Your task to perform on an android device: Open Chrome and go to settings Image 0: 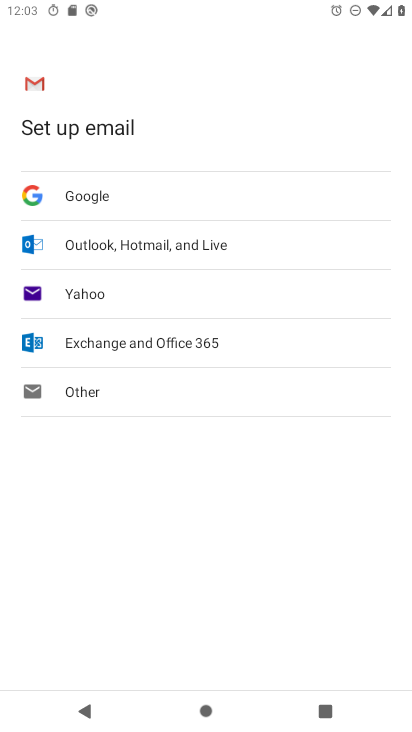
Step 0: press home button
Your task to perform on an android device: Open Chrome and go to settings Image 1: 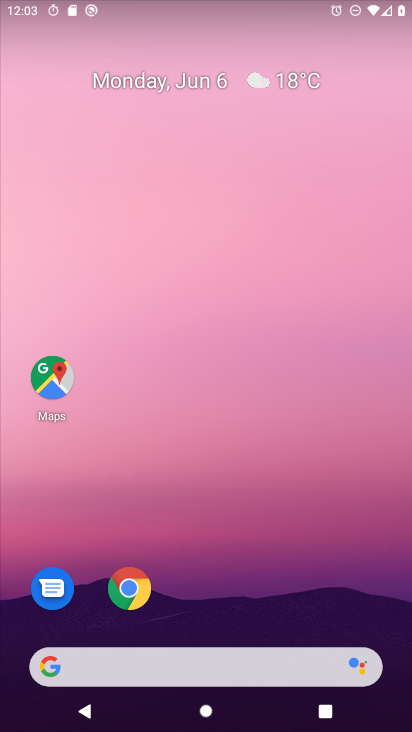
Step 1: drag from (335, 590) to (357, 297)
Your task to perform on an android device: Open Chrome and go to settings Image 2: 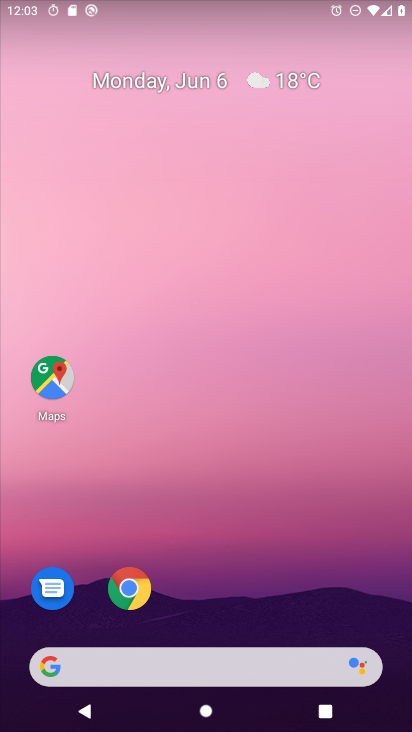
Step 2: drag from (338, 602) to (339, 55)
Your task to perform on an android device: Open Chrome and go to settings Image 3: 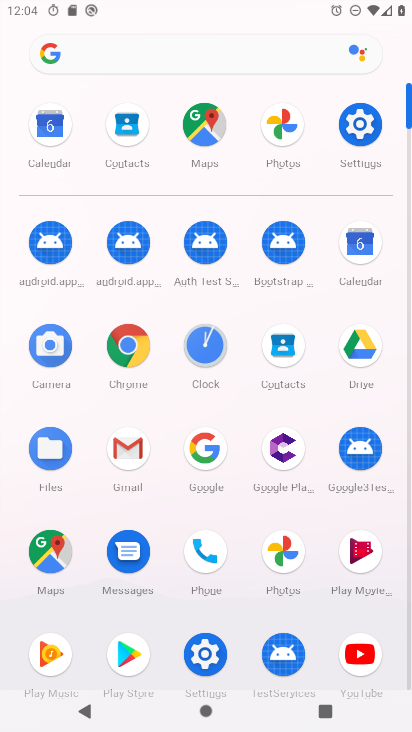
Step 3: click (133, 348)
Your task to perform on an android device: Open Chrome and go to settings Image 4: 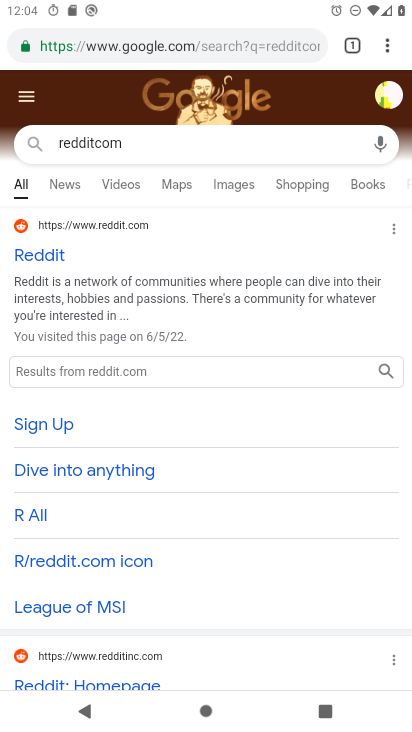
Step 4: click (383, 50)
Your task to perform on an android device: Open Chrome and go to settings Image 5: 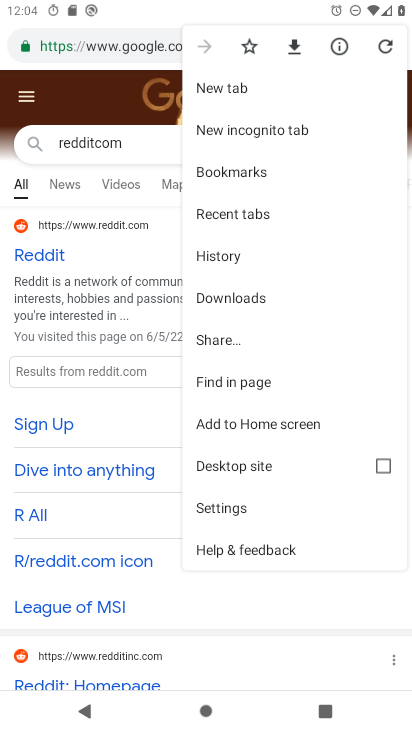
Step 5: click (239, 509)
Your task to perform on an android device: Open Chrome and go to settings Image 6: 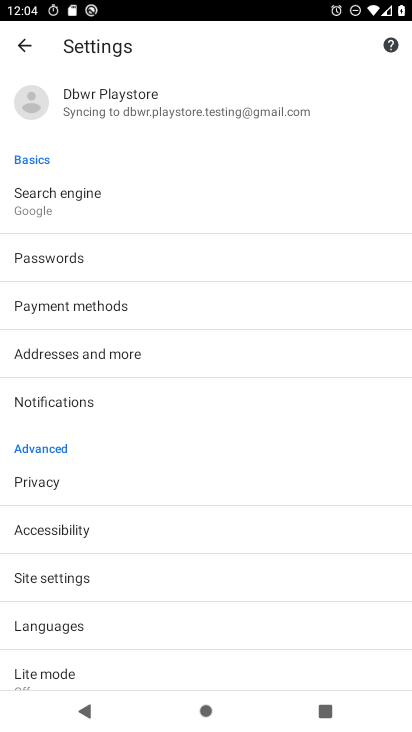
Step 6: task complete